Your task to perform on an android device: What's the weather going to be this weekend? Image 0: 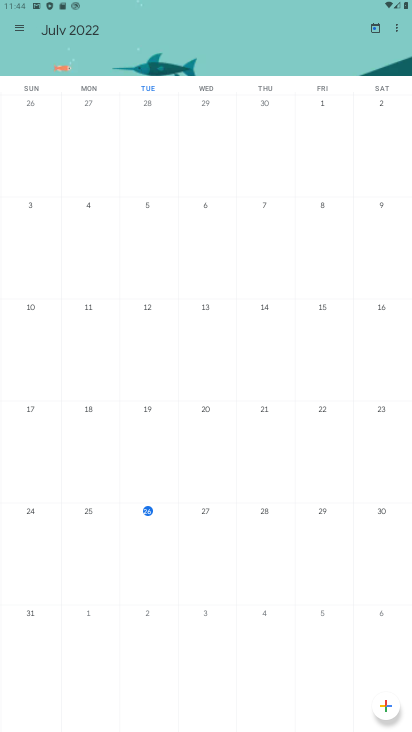
Step 0: press home button
Your task to perform on an android device: What's the weather going to be this weekend? Image 1: 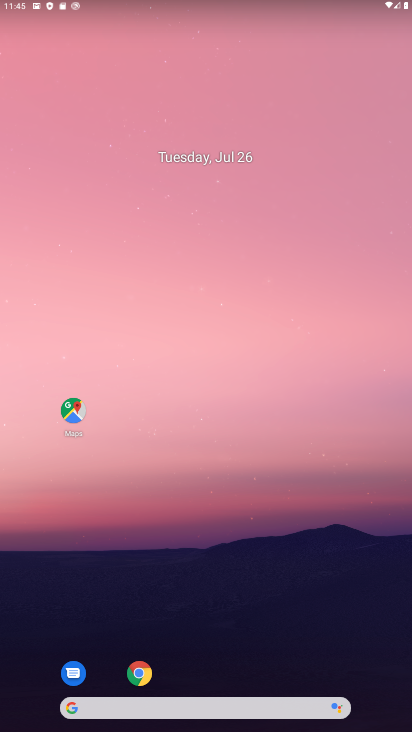
Step 1: drag from (200, 604) to (213, 184)
Your task to perform on an android device: What's the weather going to be this weekend? Image 2: 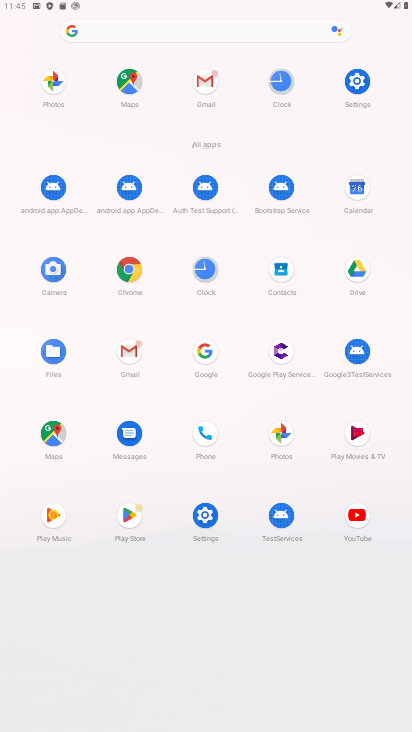
Step 2: click (134, 276)
Your task to perform on an android device: What's the weather going to be this weekend? Image 3: 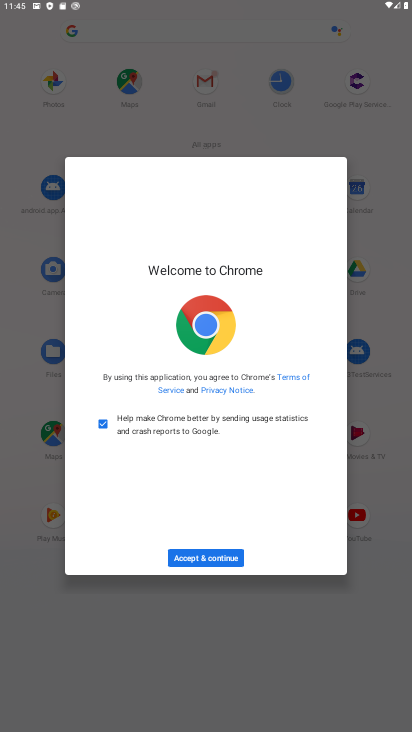
Step 3: click (211, 557)
Your task to perform on an android device: What's the weather going to be this weekend? Image 4: 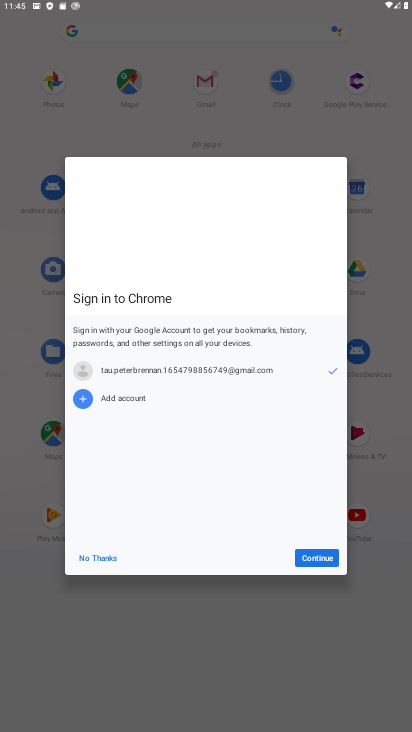
Step 4: click (306, 556)
Your task to perform on an android device: What's the weather going to be this weekend? Image 5: 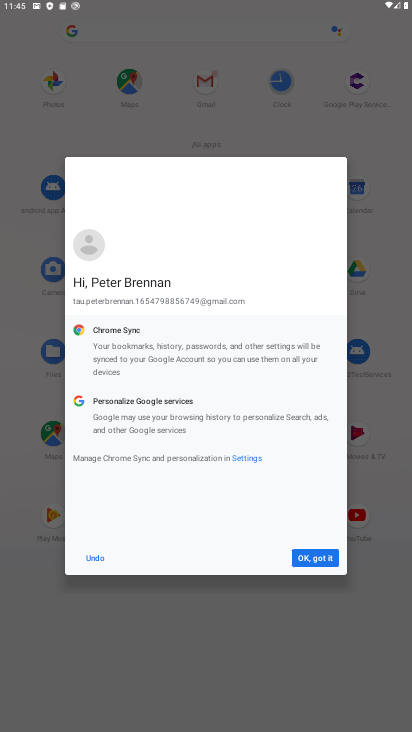
Step 5: click (306, 556)
Your task to perform on an android device: What's the weather going to be this weekend? Image 6: 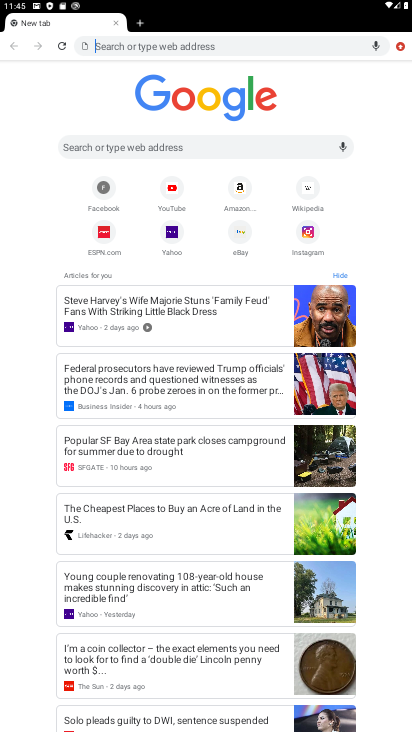
Step 6: click (185, 135)
Your task to perform on an android device: What's the weather going to be this weekend? Image 7: 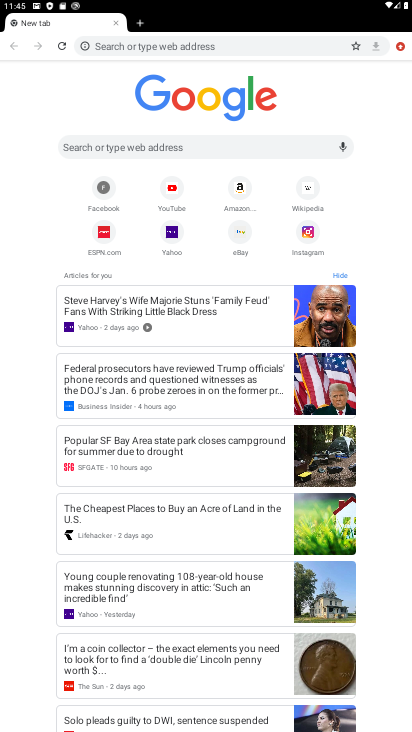
Step 7: type "What's the weather going to be this weekend? "
Your task to perform on an android device: What's the weather going to be this weekend? Image 8: 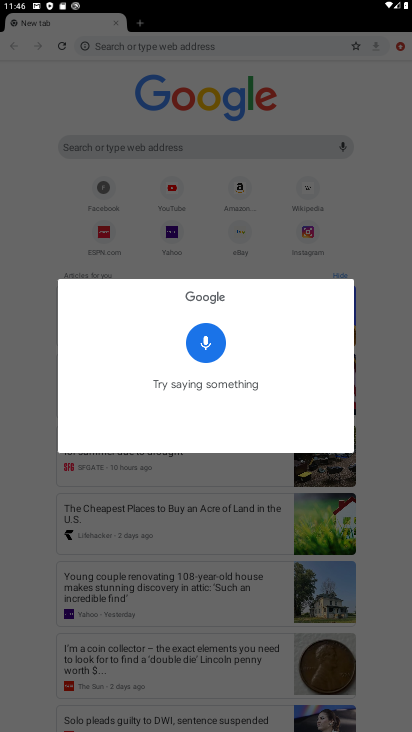
Step 8: click (375, 176)
Your task to perform on an android device: What's the weather going to be this weekend? Image 9: 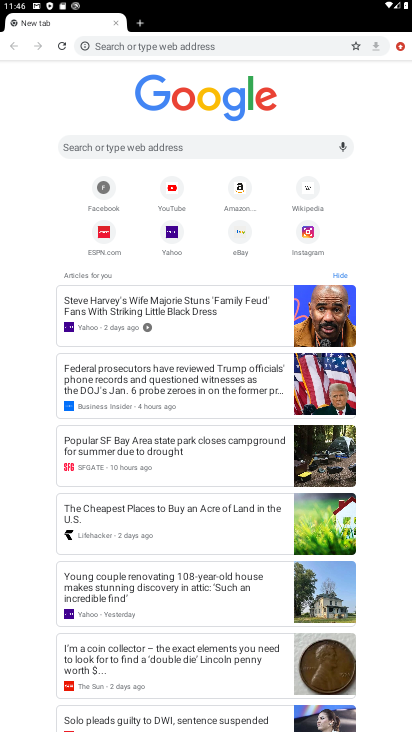
Step 9: click (163, 139)
Your task to perform on an android device: What's the weather going to be this weekend? Image 10: 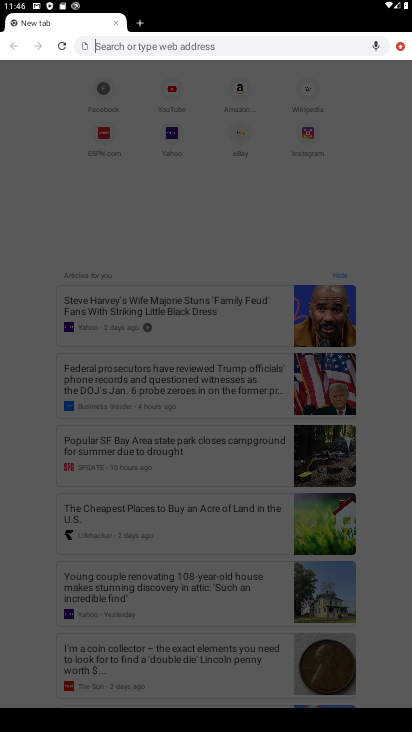
Step 10: type "What's the weather going to be this weekend? "
Your task to perform on an android device: What's the weather going to be this weekend? Image 11: 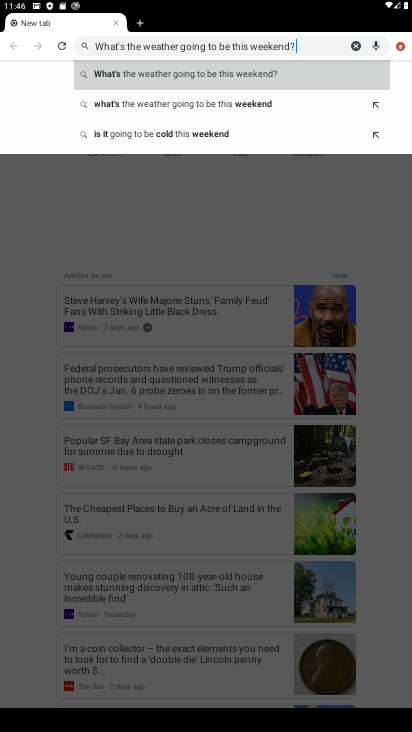
Step 11: click (139, 66)
Your task to perform on an android device: What's the weather going to be this weekend? Image 12: 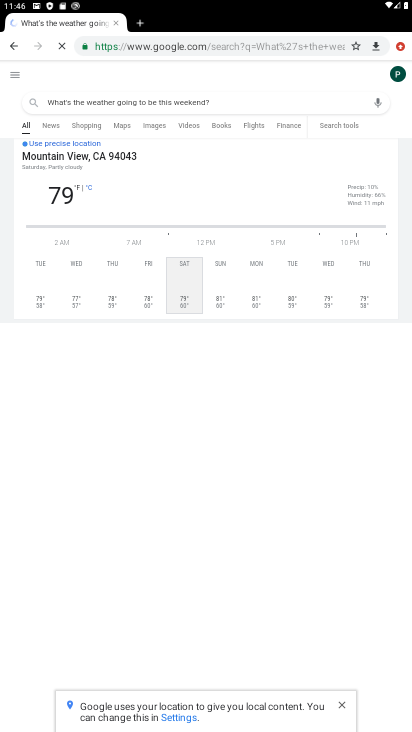
Step 12: task complete